Your task to perform on an android device: delete location history Image 0: 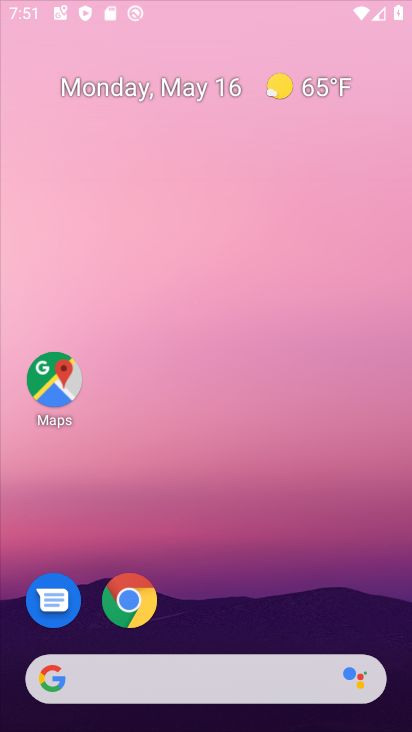
Step 0: click (263, 29)
Your task to perform on an android device: delete location history Image 1: 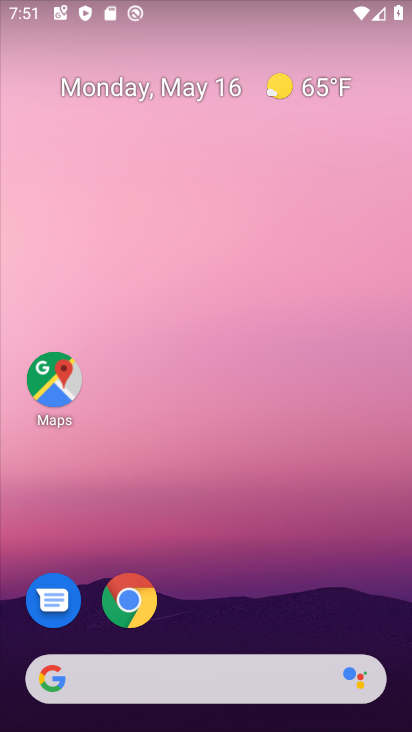
Step 1: drag from (200, 633) to (319, 21)
Your task to perform on an android device: delete location history Image 2: 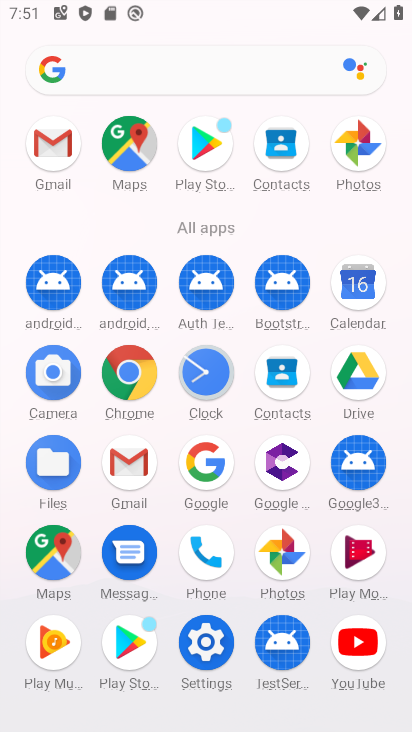
Step 2: click (210, 645)
Your task to perform on an android device: delete location history Image 3: 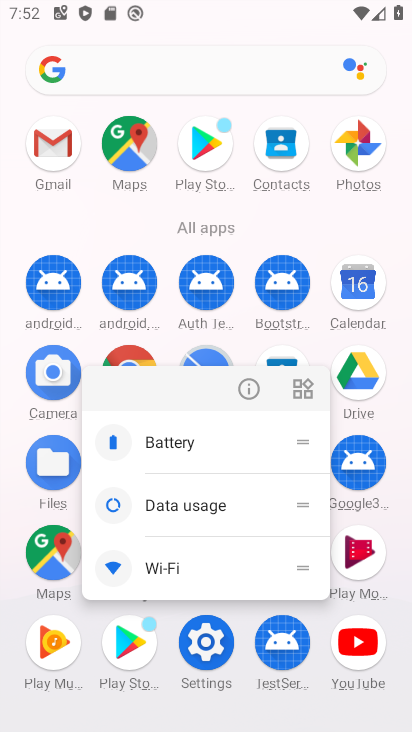
Step 3: click (254, 388)
Your task to perform on an android device: delete location history Image 4: 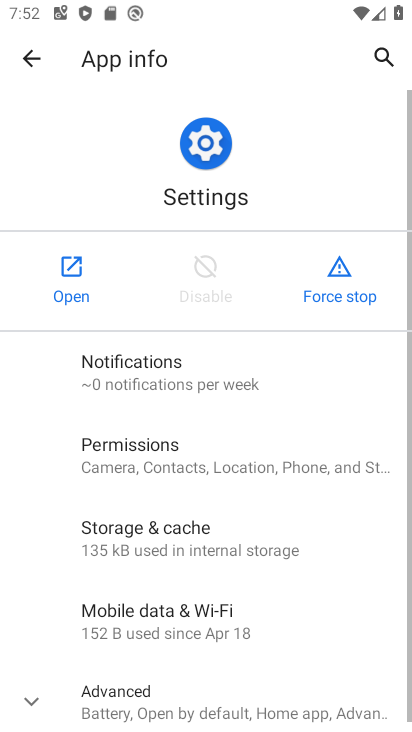
Step 4: click (90, 278)
Your task to perform on an android device: delete location history Image 5: 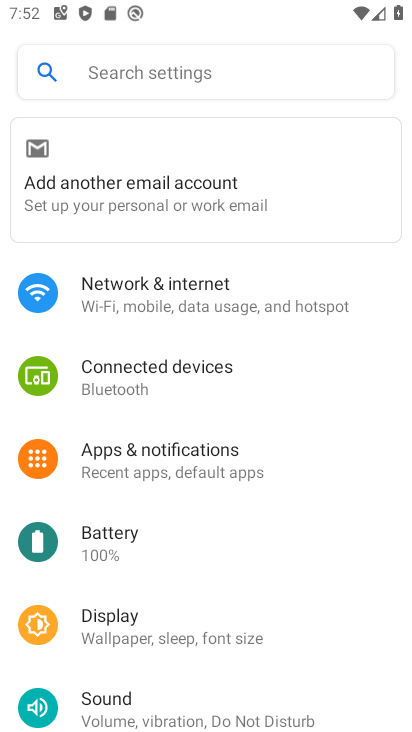
Step 5: drag from (250, 663) to (234, 0)
Your task to perform on an android device: delete location history Image 6: 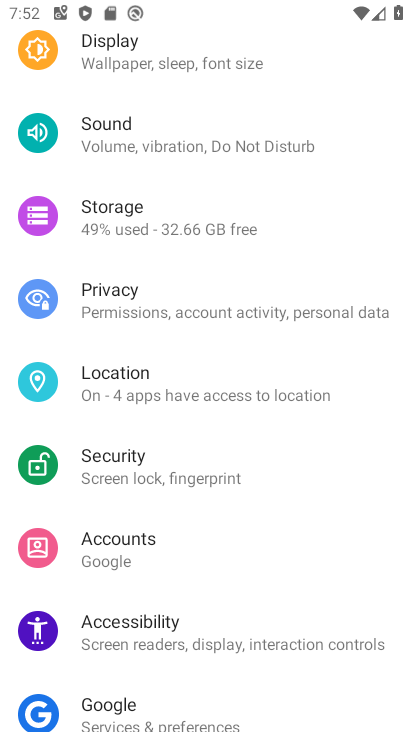
Step 6: drag from (192, 643) to (249, 229)
Your task to perform on an android device: delete location history Image 7: 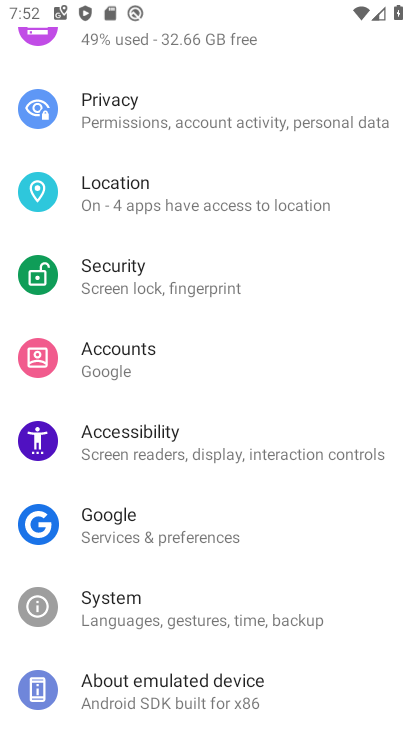
Step 7: click (191, 209)
Your task to perform on an android device: delete location history Image 8: 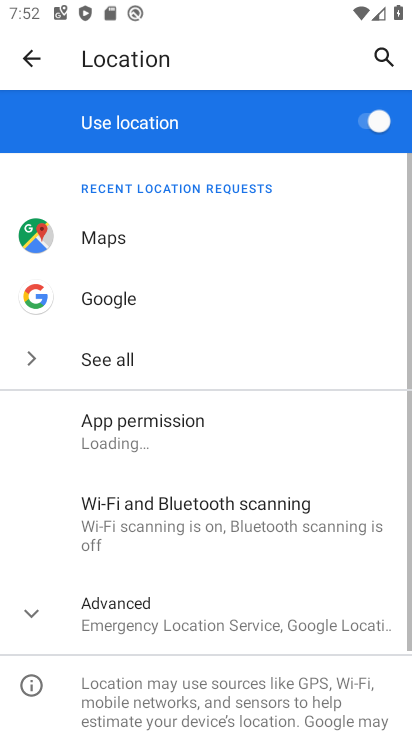
Step 8: drag from (197, 438) to (255, 134)
Your task to perform on an android device: delete location history Image 9: 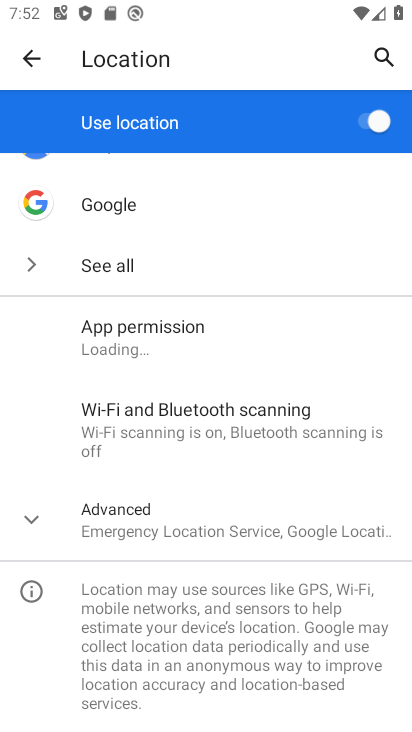
Step 9: click (131, 510)
Your task to perform on an android device: delete location history Image 10: 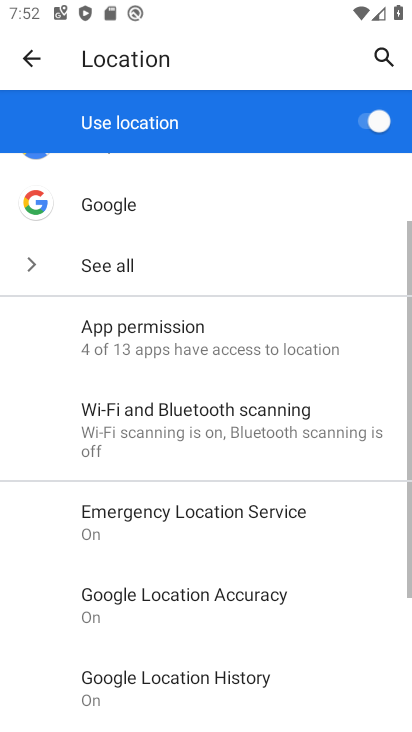
Step 10: drag from (248, 584) to (310, 262)
Your task to perform on an android device: delete location history Image 11: 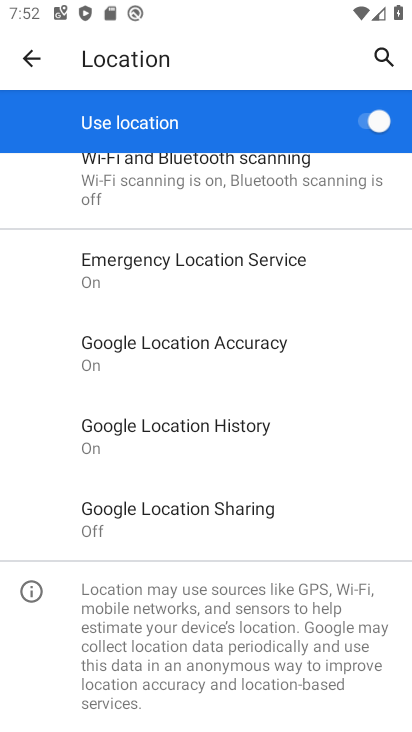
Step 11: click (224, 420)
Your task to perform on an android device: delete location history Image 12: 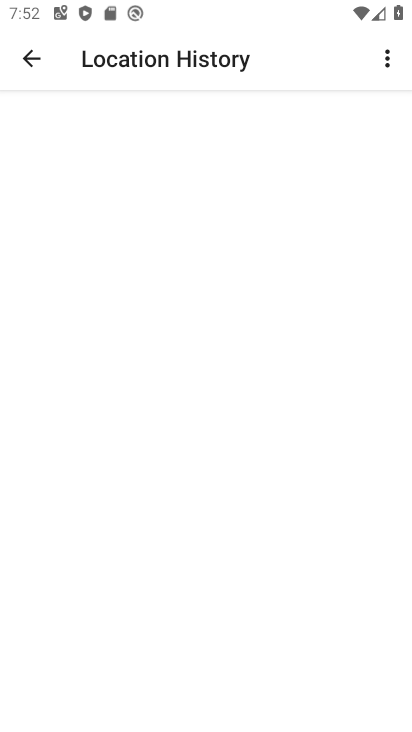
Step 12: drag from (237, 528) to (333, 66)
Your task to perform on an android device: delete location history Image 13: 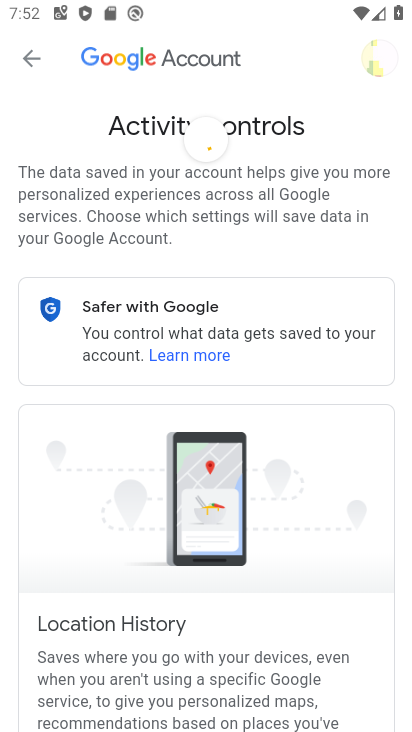
Step 13: drag from (243, 479) to (290, 46)
Your task to perform on an android device: delete location history Image 14: 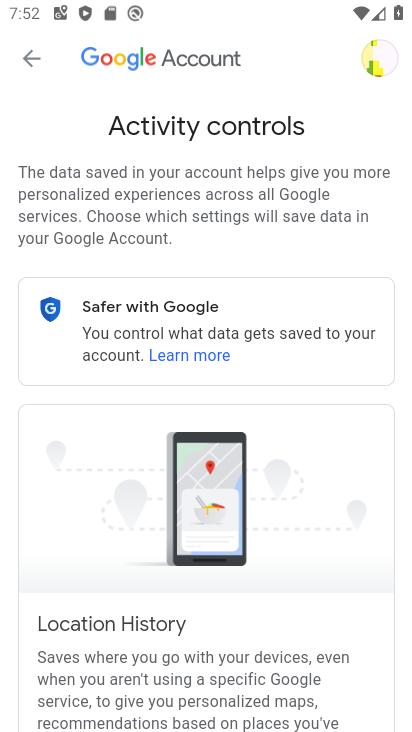
Step 14: drag from (217, 515) to (341, 20)
Your task to perform on an android device: delete location history Image 15: 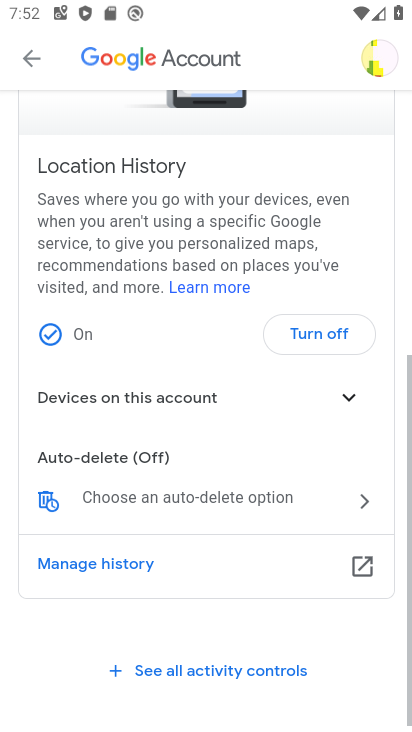
Step 15: drag from (207, 545) to (230, 251)
Your task to perform on an android device: delete location history Image 16: 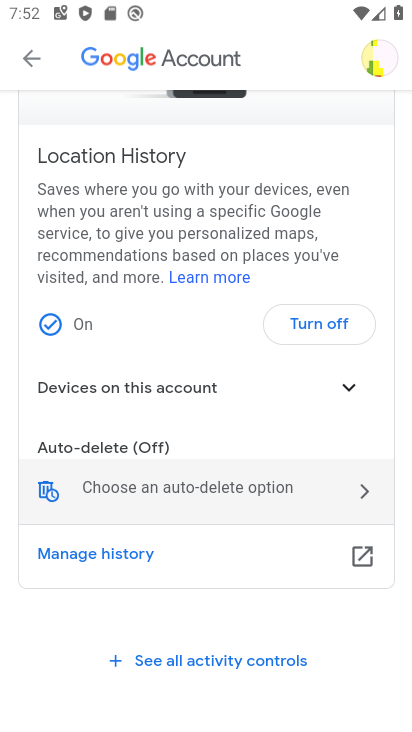
Step 16: click (42, 500)
Your task to perform on an android device: delete location history Image 17: 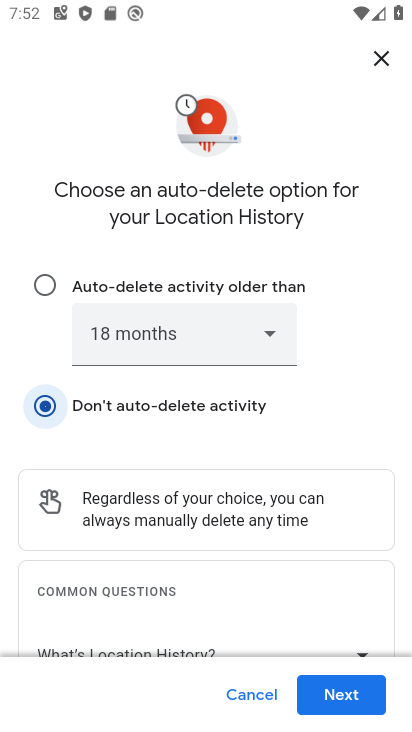
Step 17: click (331, 691)
Your task to perform on an android device: delete location history Image 18: 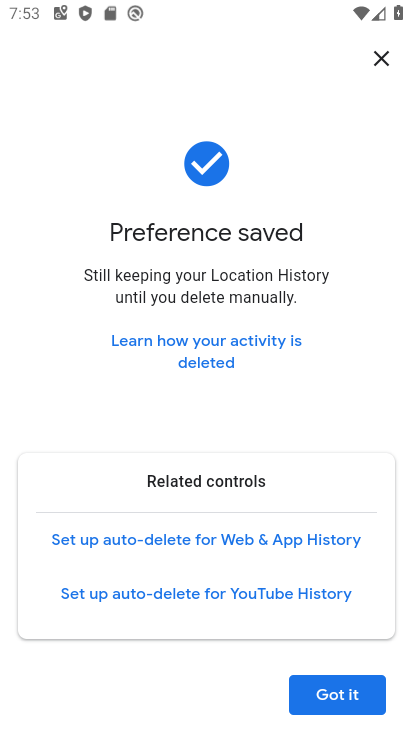
Step 18: click (324, 705)
Your task to perform on an android device: delete location history Image 19: 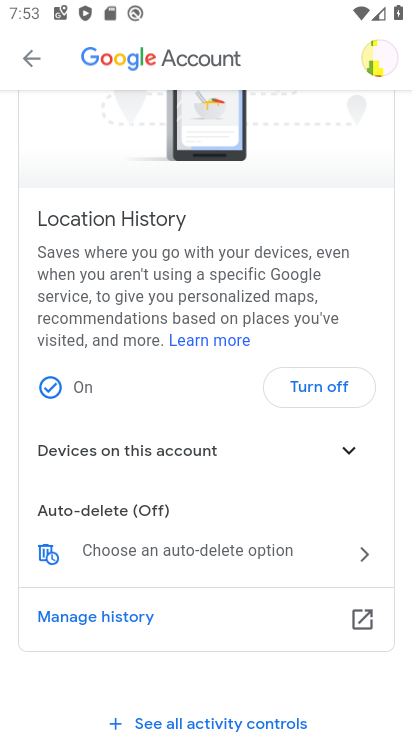
Step 19: task complete